Your task to perform on an android device: move a message to another label in the gmail app Image 0: 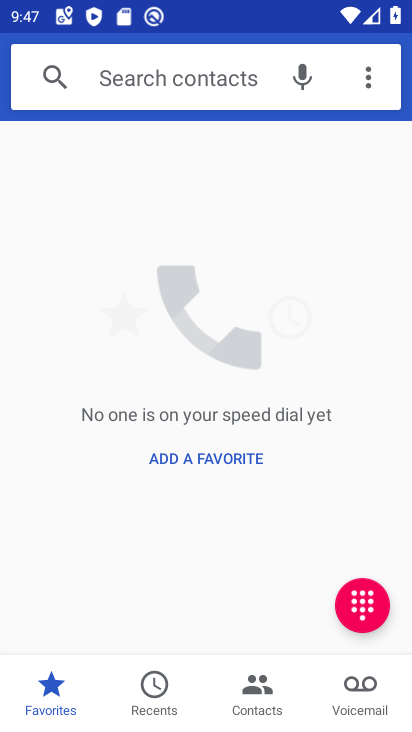
Step 0: press home button
Your task to perform on an android device: move a message to another label in the gmail app Image 1: 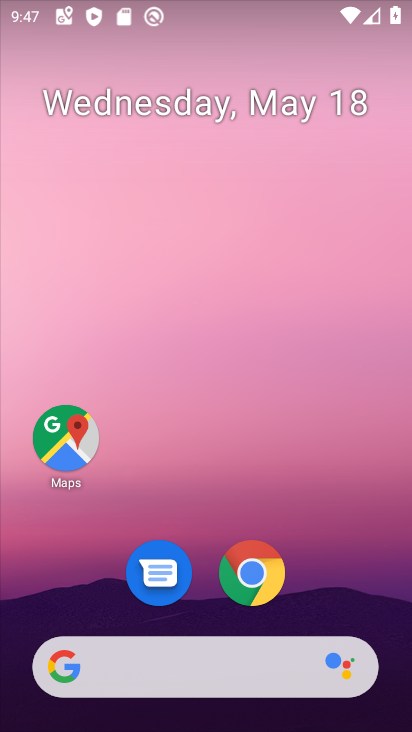
Step 1: drag from (192, 731) to (204, 5)
Your task to perform on an android device: move a message to another label in the gmail app Image 2: 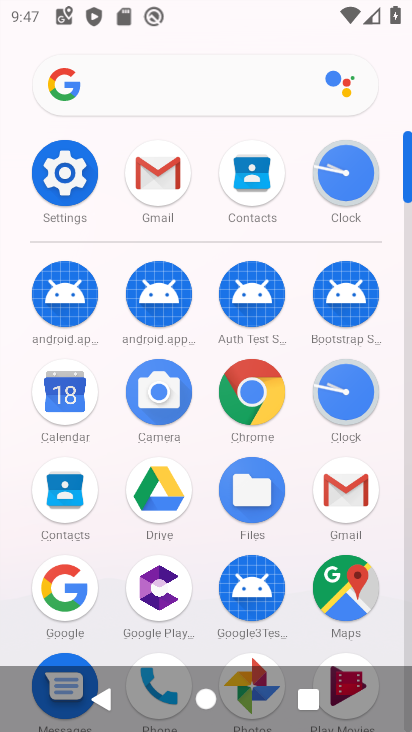
Step 2: click (163, 176)
Your task to perform on an android device: move a message to another label in the gmail app Image 3: 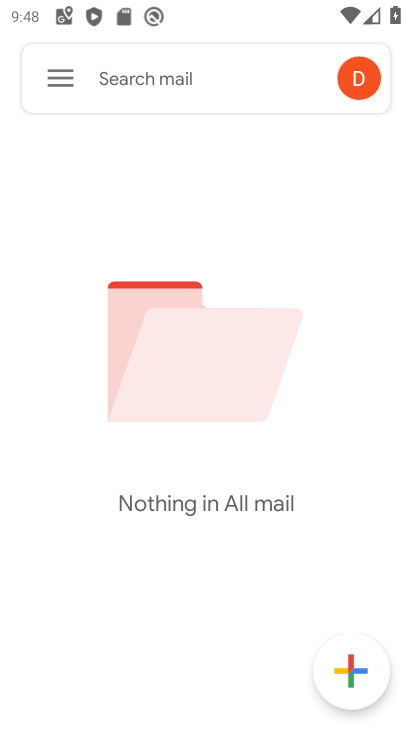
Step 3: click (54, 81)
Your task to perform on an android device: move a message to another label in the gmail app Image 4: 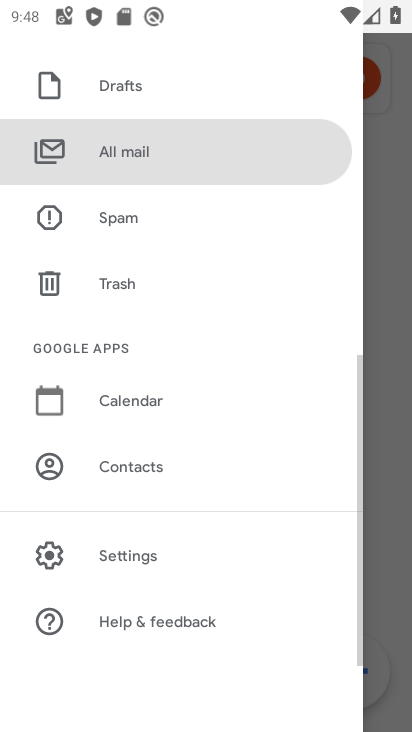
Step 4: click (240, 156)
Your task to perform on an android device: move a message to another label in the gmail app Image 5: 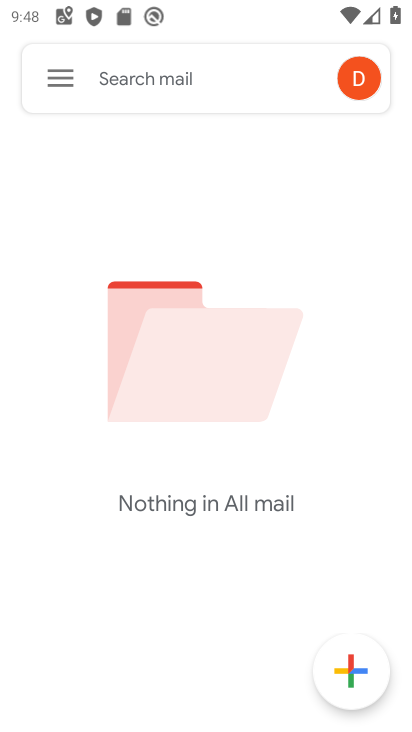
Step 5: task complete